Your task to perform on an android device: remove spam from my inbox in the gmail app Image 0: 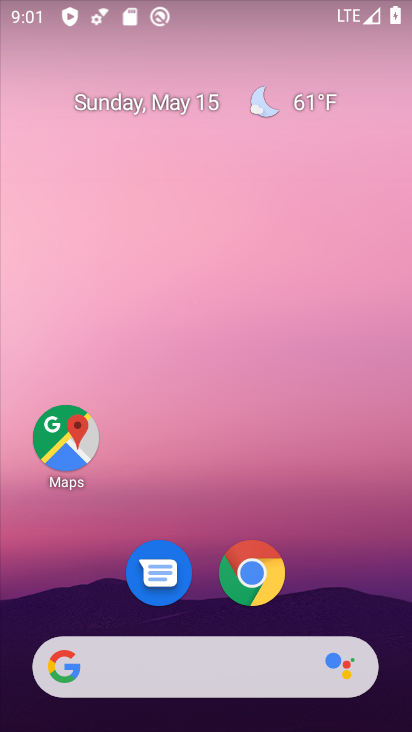
Step 0: drag from (0, 407) to (207, 132)
Your task to perform on an android device: remove spam from my inbox in the gmail app Image 1: 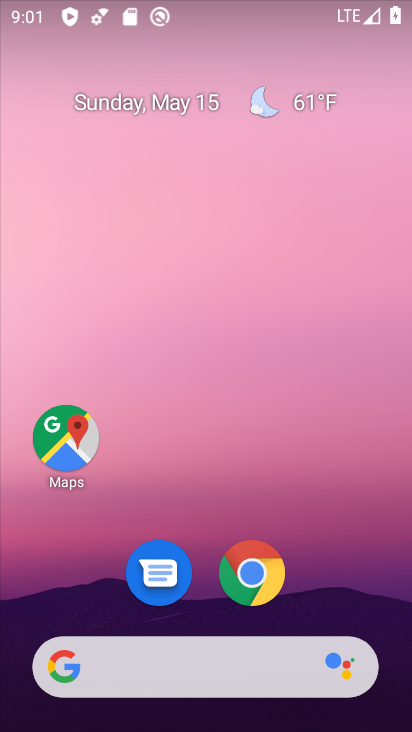
Step 1: drag from (19, 674) to (223, 165)
Your task to perform on an android device: remove spam from my inbox in the gmail app Image 2: 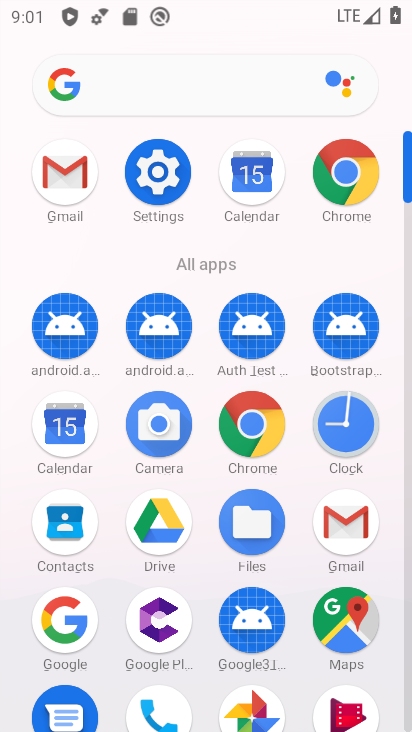
Step 2: click (348, 534)
Your task to perform on an android device: remove spam from my inbox in the gmail app Image 3: 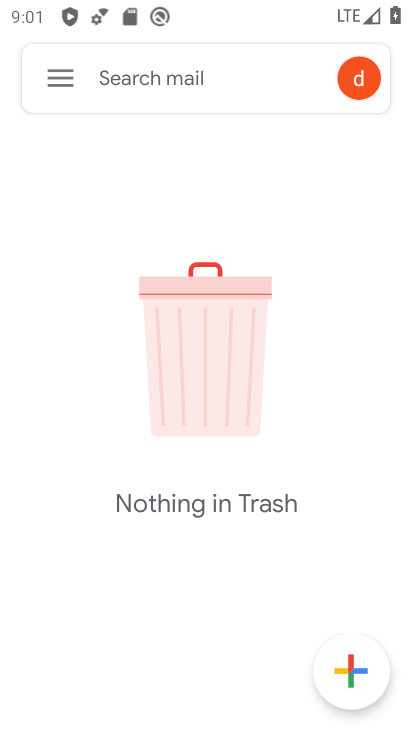
Step 3: click (71, 76)
Your task to perform on an android device: remove spam from my inbox in the gmail app Image 4: 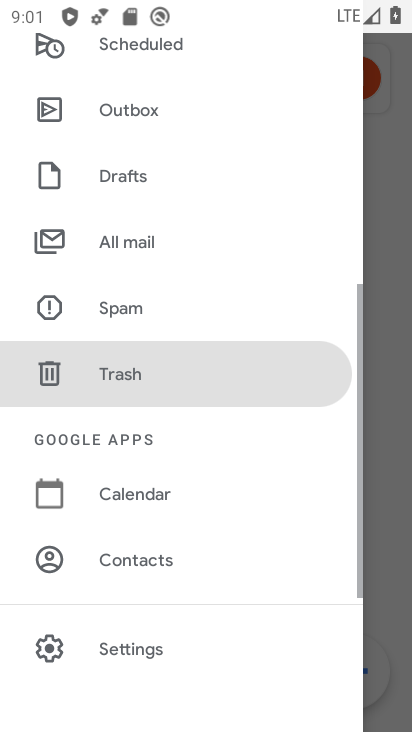
Step 4: click (107, 309)
Your task to perform on an android device: remove spam from my inbox in the gmail app Image 5: 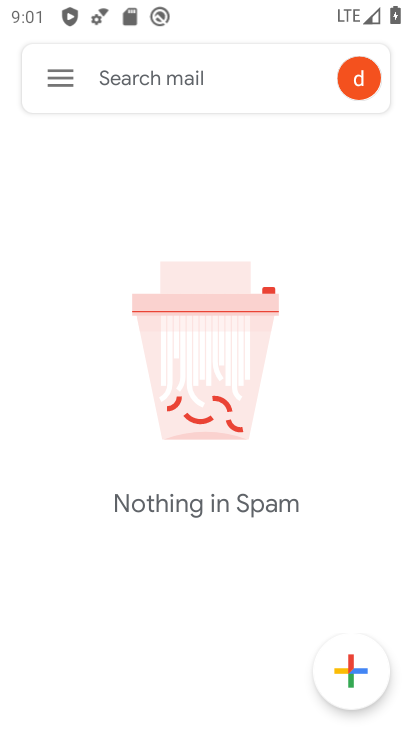
Step 5: task complete